Your task to perform on an android device: Open Yahoo.com Image 0: 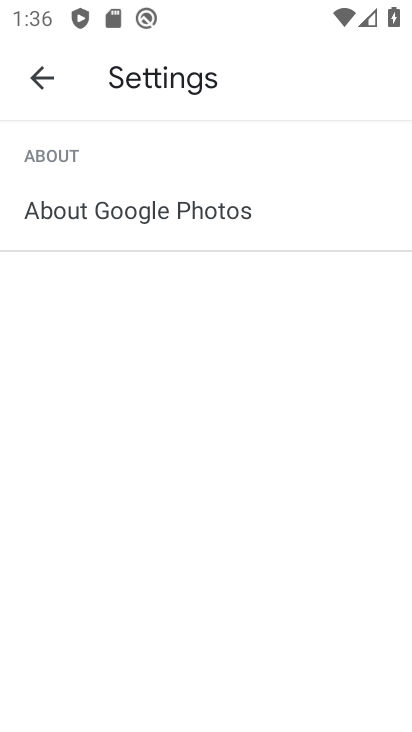
Step 0: press home button
Your task to perform on an android device: Open Yahoo.com Image 1: 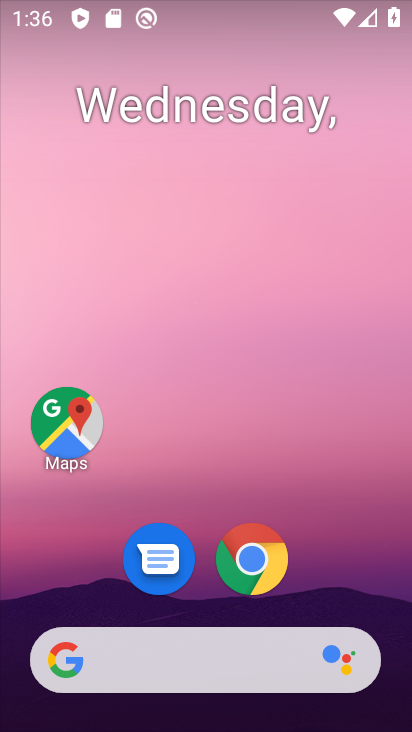
Step 1: click (162, 646)
Your task to perform on an android device: Open Yahoo.com Image 2: 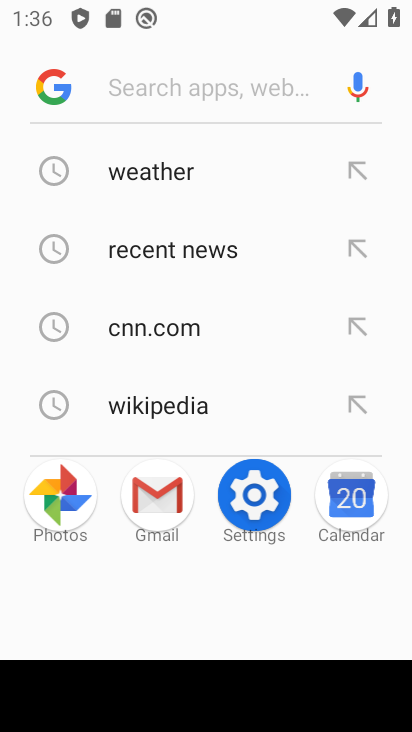
Step 2: type "Yahoo.com"
Your task to perform on an android device: Open Yahoo.com Image 3: 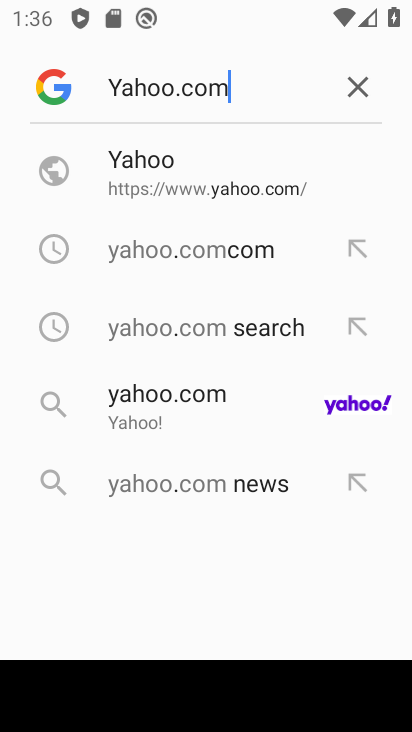
Step 3: click (189, 399)
Your task to perform on an android device: Open Yahoo.com Image 4: 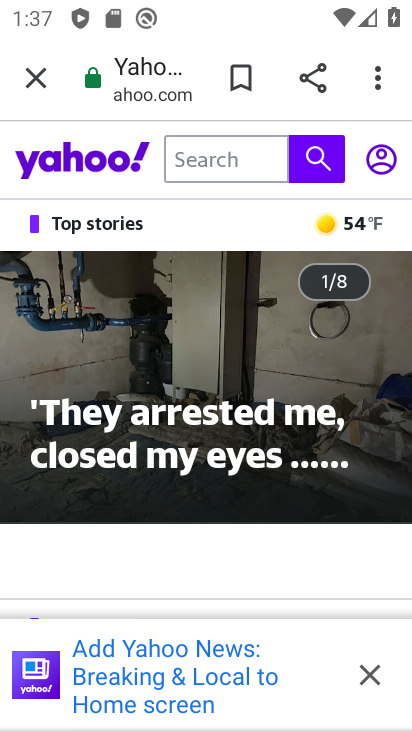
Step 4: task complete